Your task to perform on an android device: change notifications settings Image 0: 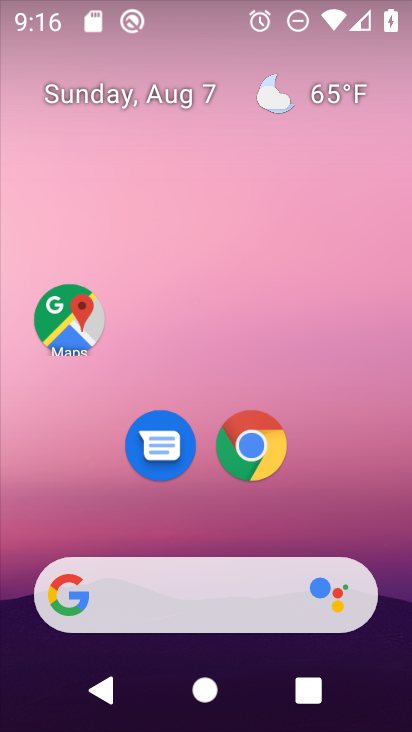
Step 0: press home button
Your task to perform on an android device: change notifications settings Image 1: 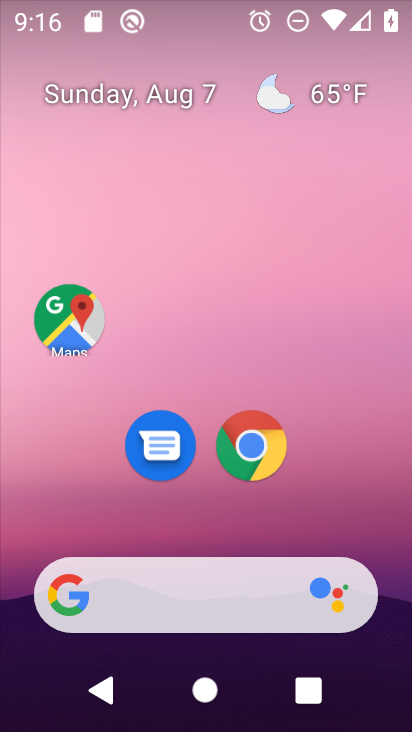
Step 1: drag from (194, 525) to (207, 92)
Your task to perform on an android device: change notifications settings Image 2: 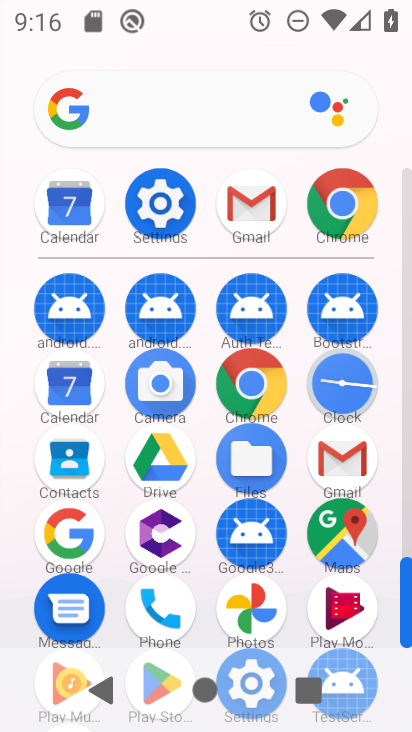
Step 2: click (158, 200)
Your task to perform on an android device: change notifications settings Image 3: 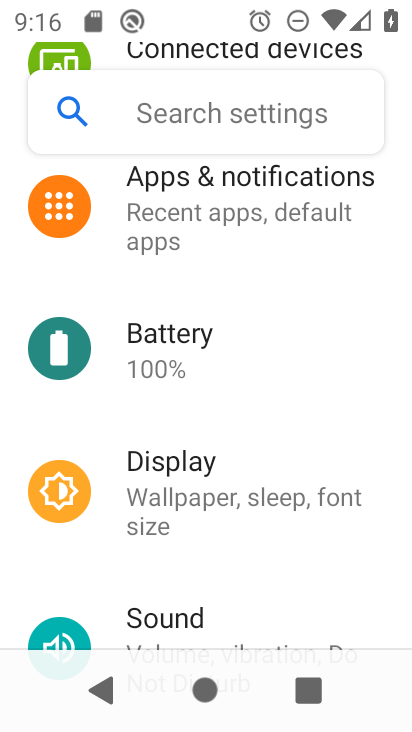
Step 3: click (219, 205)
Your task to perform on an android device: change notifications settings Image 4: 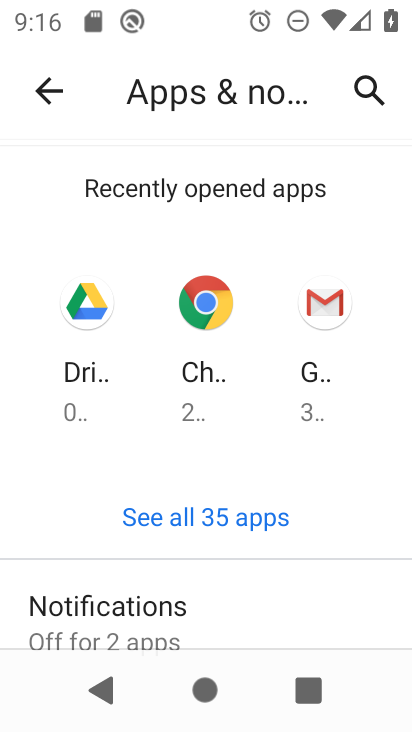
Step 4: click (199, 613)
Your task to perform on an android device: change notifications settings Image 5: 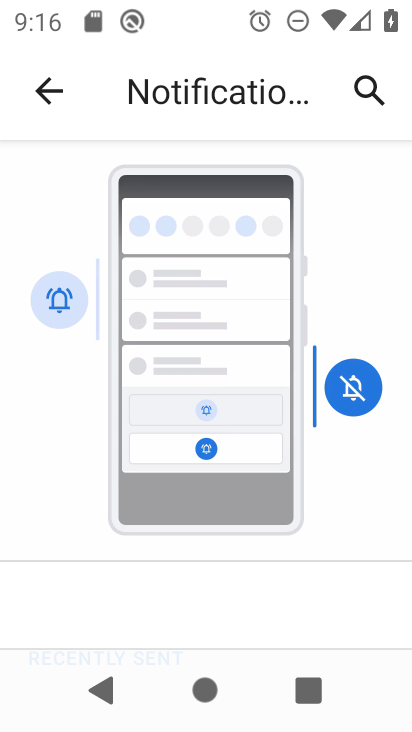
Step 5: drag from (216, 576) to (223, 156)
Your task to perform on an android device: change notifications settings Image 6: 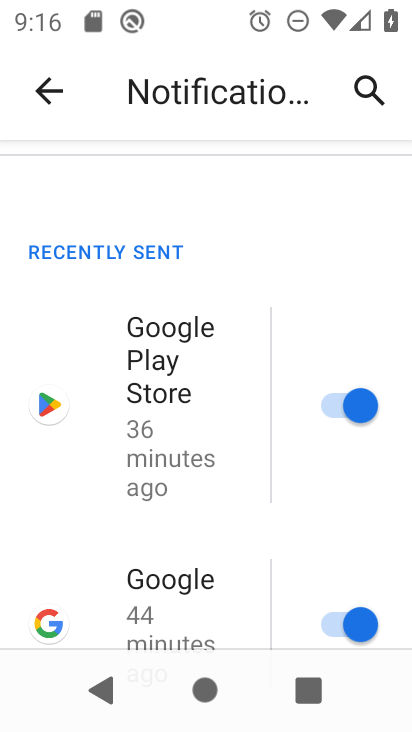
Step 6: click (344, 404)
Your task to perform on an android device: change notifications settings Image 7: 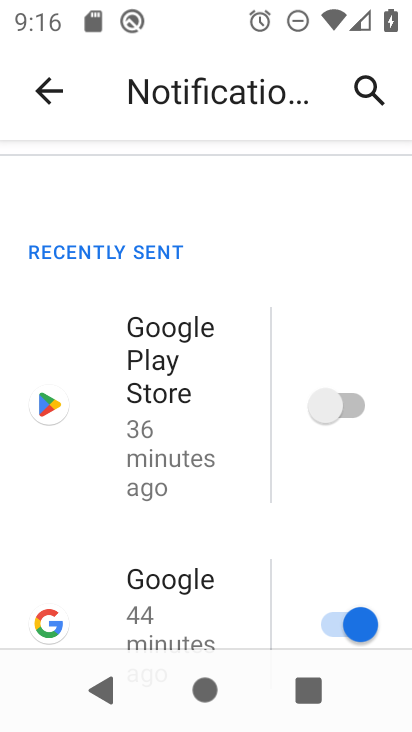
Step 7: click (342, 622)
Your task to perform on an android device: change notifications settings Image 8: 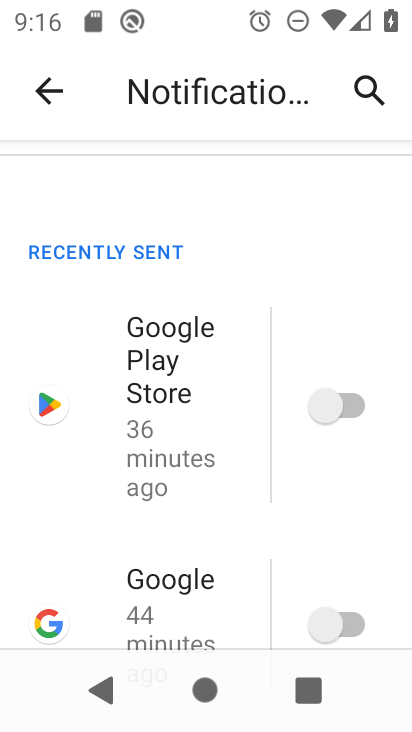
Step 8: drag from (247, 615) to (268, 195)
Your task to perform on an android device: change notifications settings Image 9: 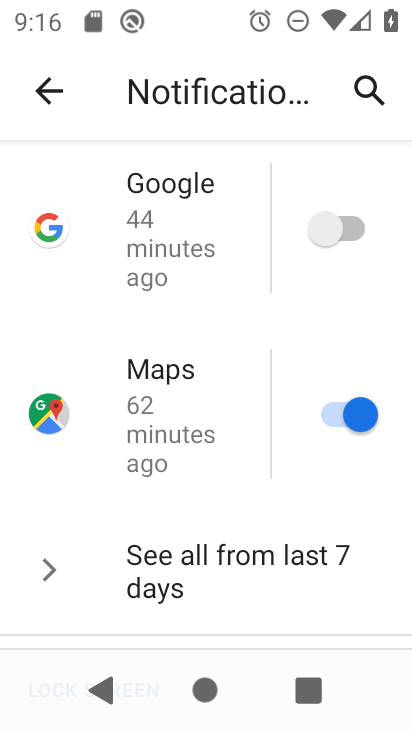
Step 9: click (332, 412)
Your task to perform on an android device: change notifications settings Image 10: 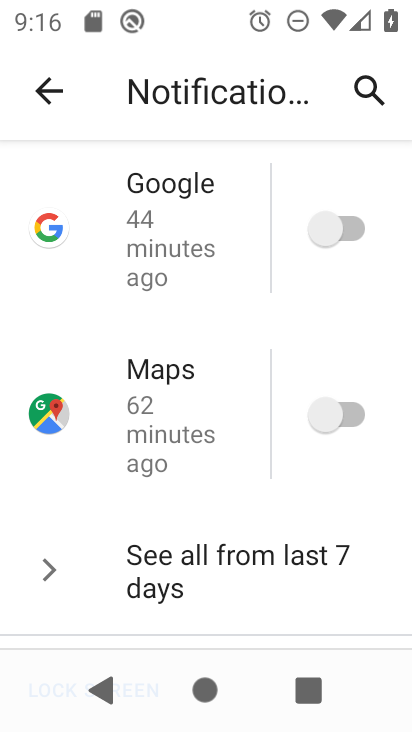
Step 10: drag from (232, 608) to (248, 150)
Your task to perform on an android device: change notifications settings Image 11: 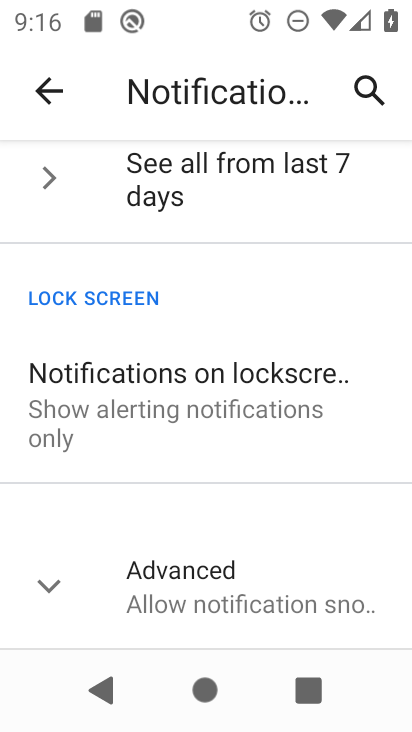
Step 11: click (47, 582)
Your task to perform on an android device: change notifications settings Image 12: 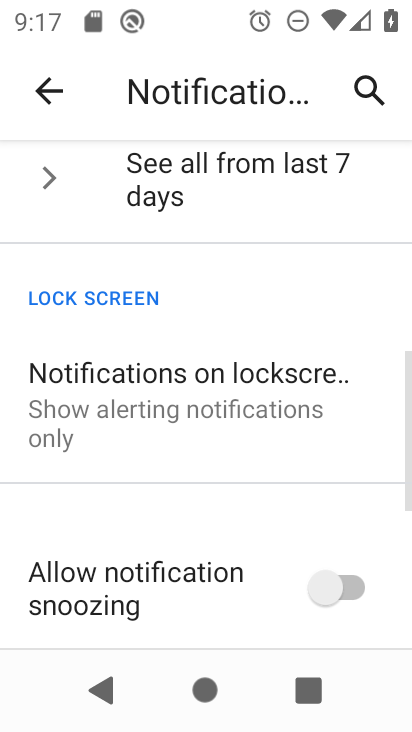
Step 12: drag from (220, 599) to (264, 278)
Your task to perform on an android device: change notifications settings Image 13: 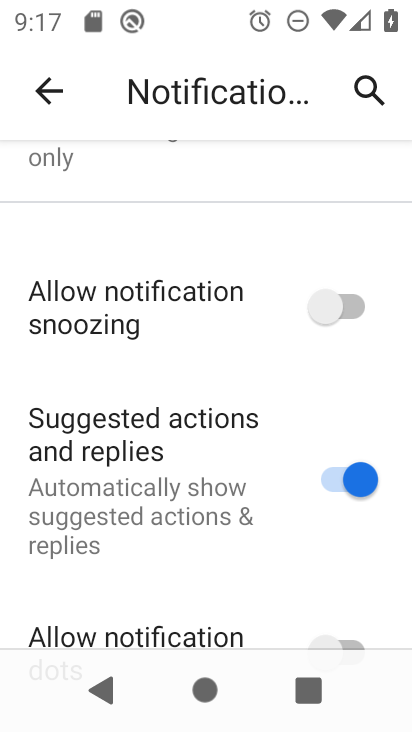
Step 13: click (340, 306)
Your task to perform on an android device: change notifications settings Image 14: 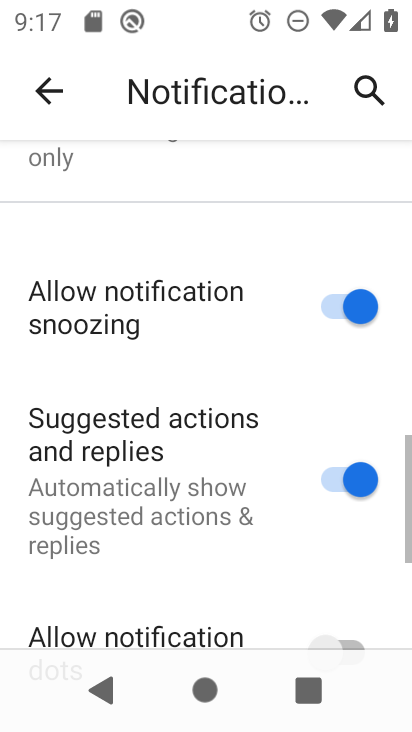
Step 14: click (339, 482)
Your task to perform on an android device: change notifications settings Image 15: 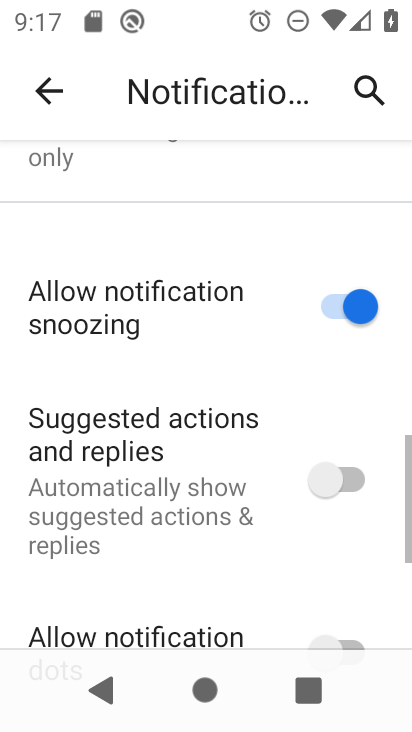
Step 15: drag from (226, 607) to (272, 200)
Your task to perform on an android device: change notifications settings Image 16: 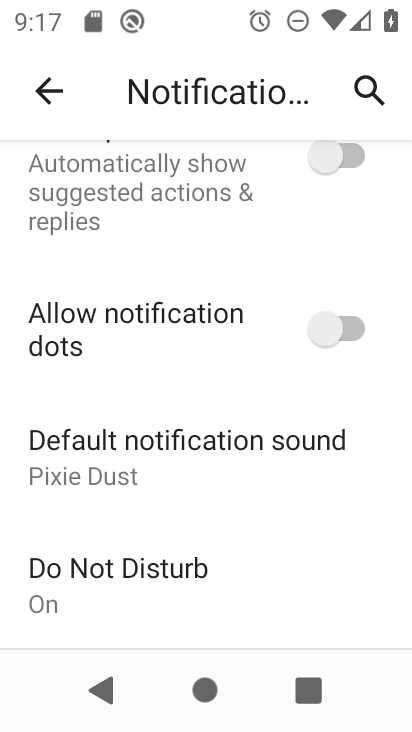
Step 16: click (344, 314)
Your task to perform on an android device: change notifications settings Image 17: 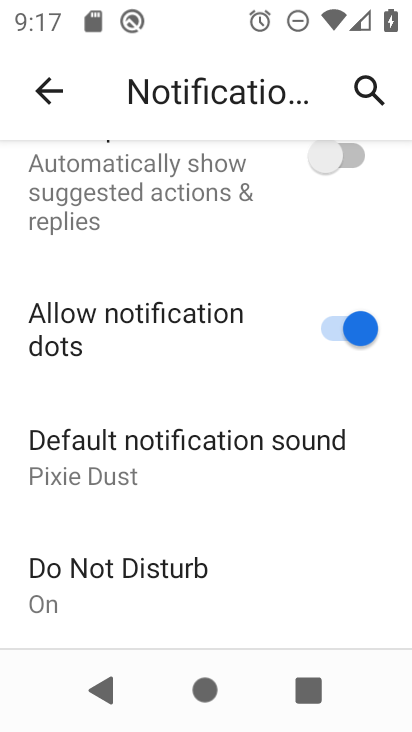
Step 17: task complete